Your task to perform on an android device: Search for "logitech g910" on target.com, select the first entry, and add it to the cart. Image 0: 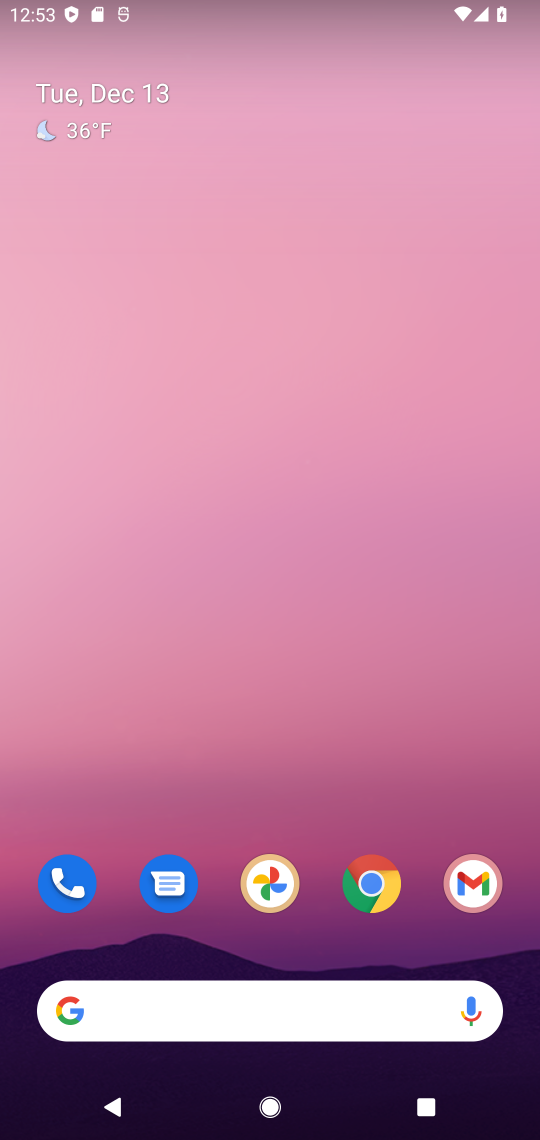
Step 0: click (285, 1006)
Your task to perform on an android device: Search for "logitech g910" on target.com, select the first entry, and add it to the cart. Image 1: 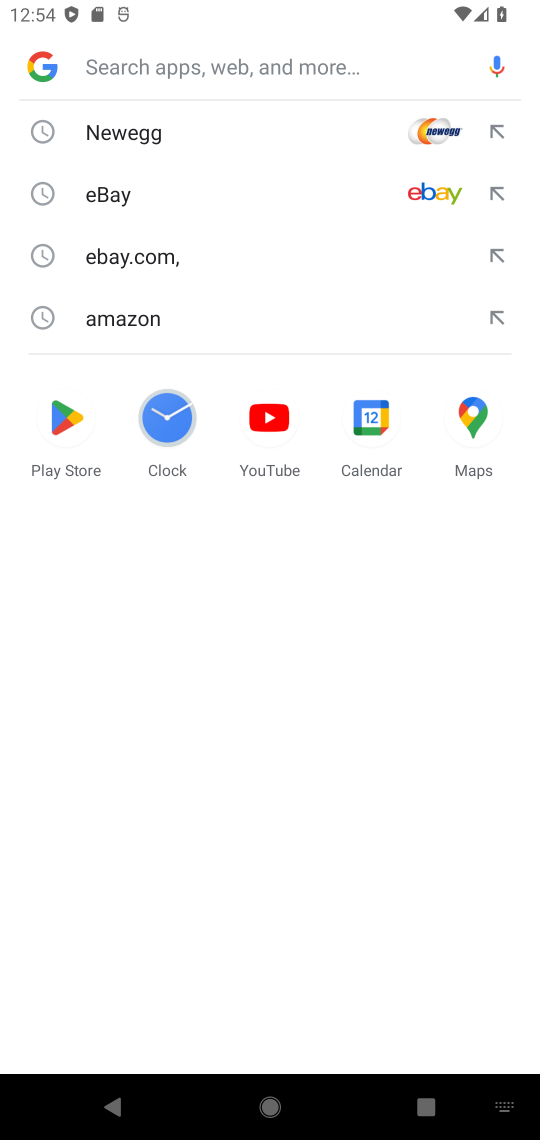
Step 1: type "target.com"
Your task to perform on an android device: Search for "logitech g910" on target.com, select the first entry, and add it to the cart. Image 2: 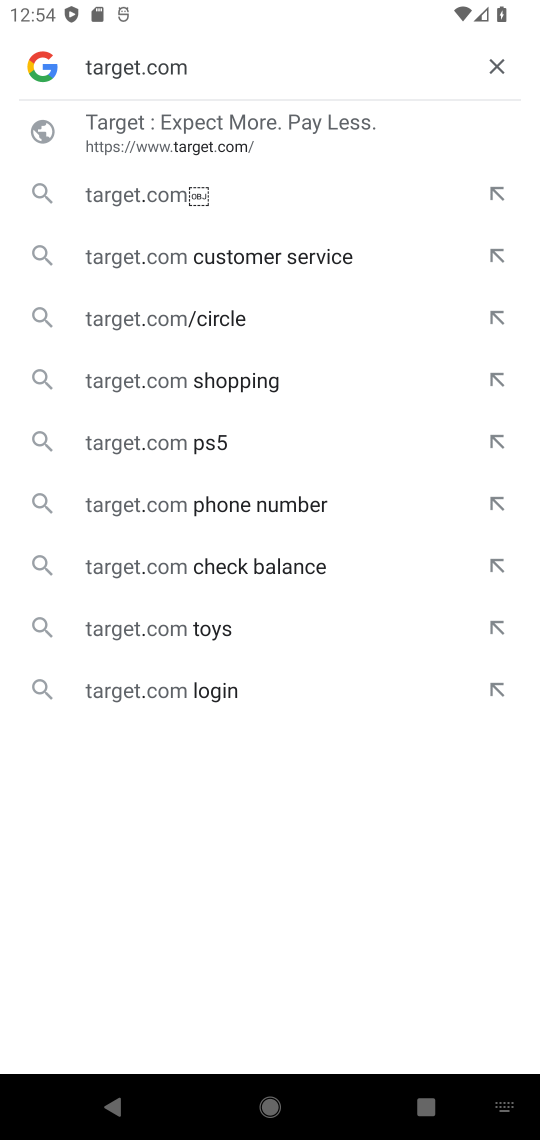
Step 2: click (172, 140)
Your task to perform on an android device: Search for "logitech g910" on target.com, select the first entry, and add it to the cart. Image 3: 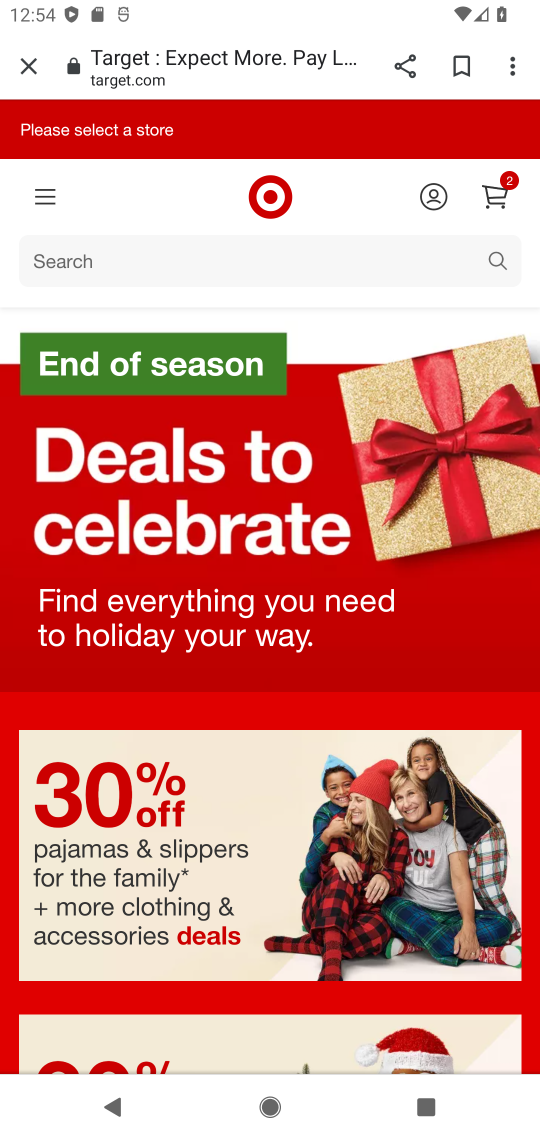
Step 3: click (164, 277)
Your task to perform on an android device: Search for "logitech g910" on target.com, select the first entry, and add it to the cart. Image 4: 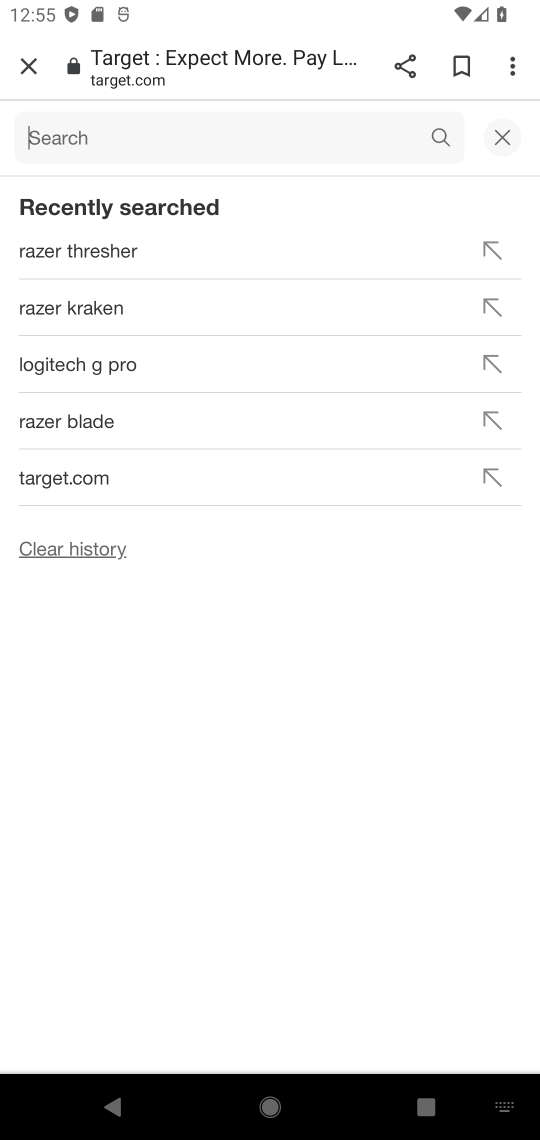
Step 4: type "logitech g910"
Your task to perform on an android device: Search for "logitech g910" on target.com, select the first entry, and add it to the cart. Image 5: 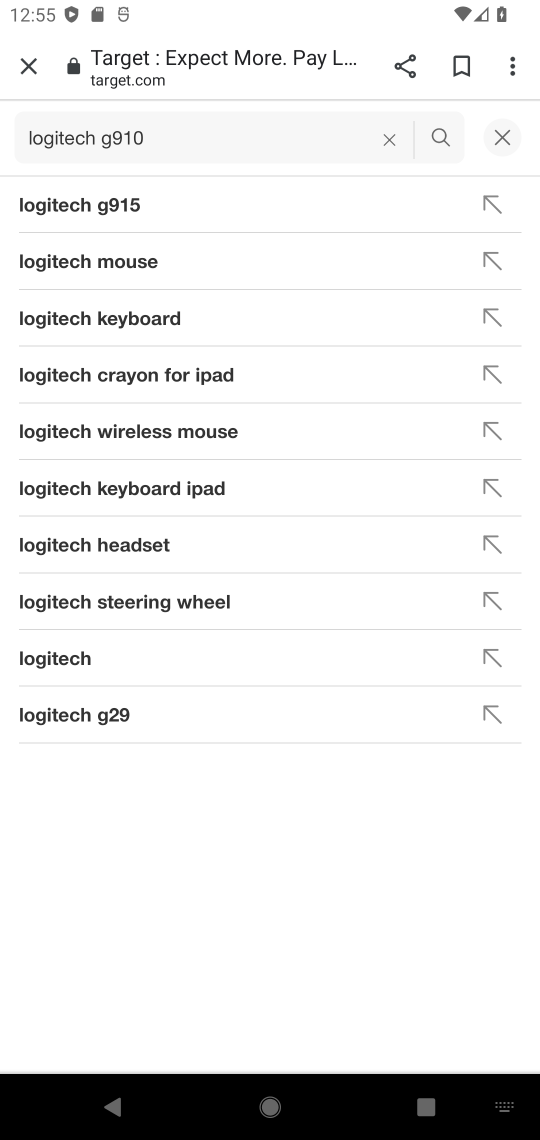
Step 5: click (437, 133)
Your task to perform on an android device: Search for "logitech g910" on target.com, select the first entry, and add it to the cart. Image 6: 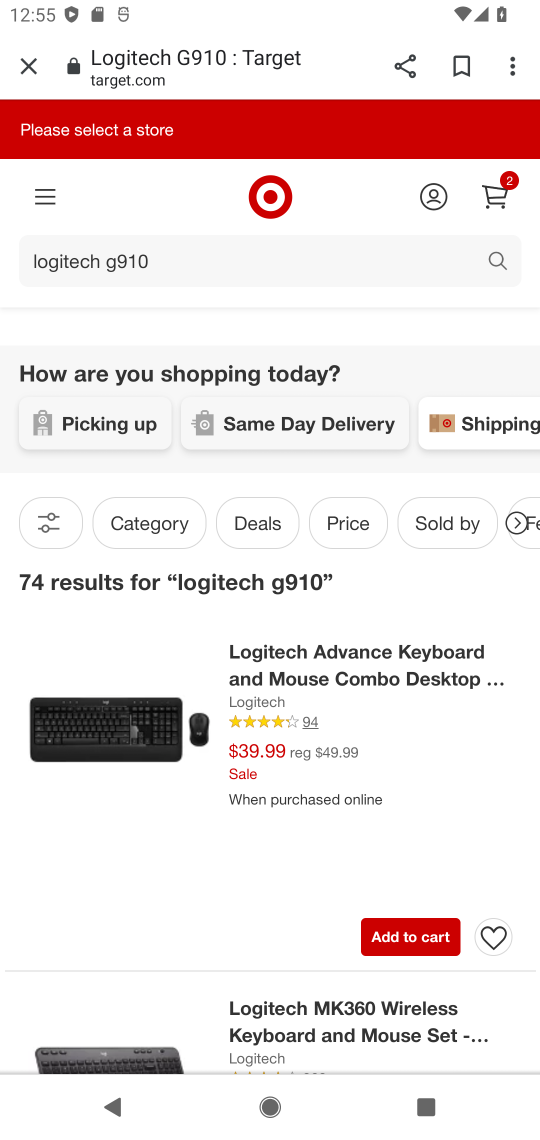
Step 6: click (405, 932)
Your task to perform on an android device: Search for "logitech g910" on target.com, select the first entry, and add it to the cart. Image 7: 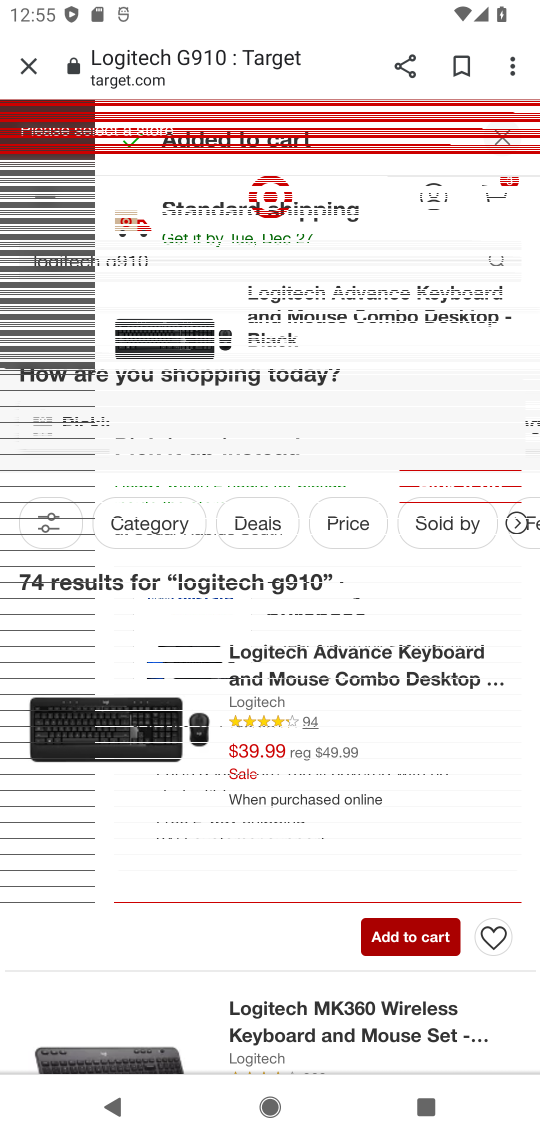
Step 7: task complete